Your task to perform on an android device: turn pop-ups on in chrome Image 0: 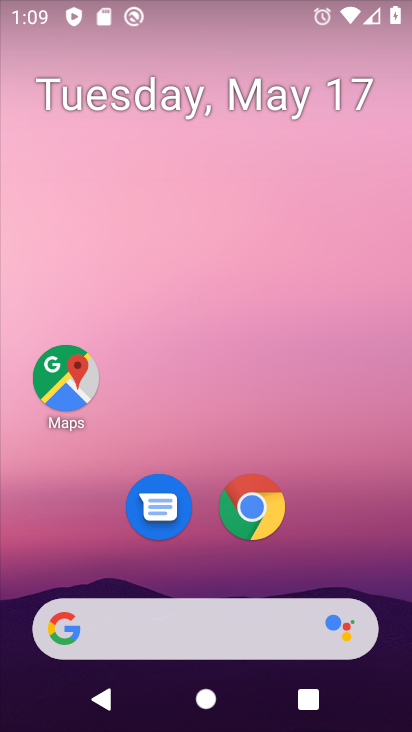
Step 0: click (227, 501)
Your task to perform on an android device: turn pop-ups on in chrome Image 1: 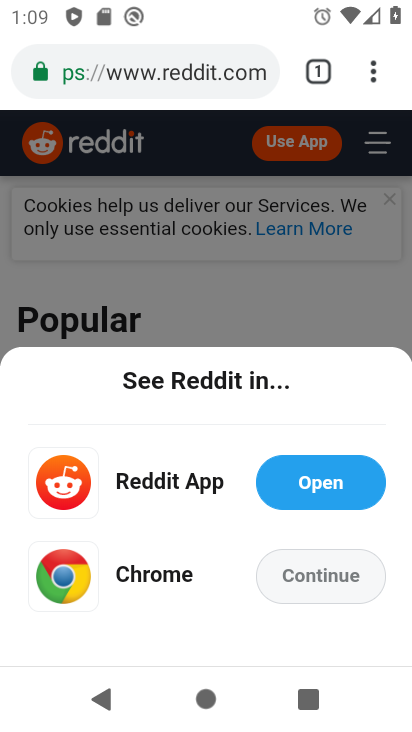
Step 1: click (354, 75)
Your task to perform on an android device: turn pop-ups on in chrome Image 2: 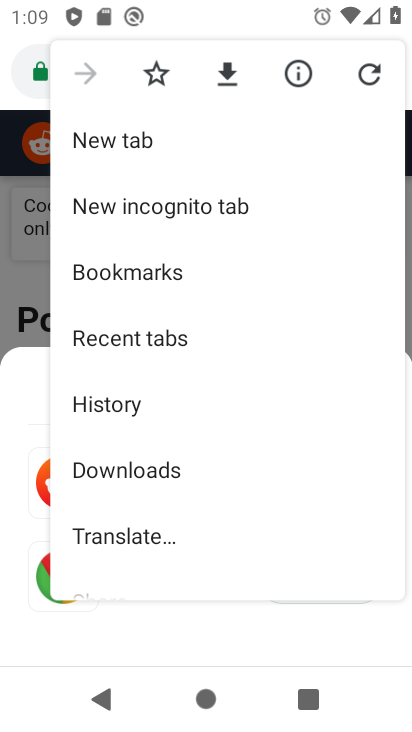
Step 2: drag from (211, 511) to (259, 252)
Your task to perform on an android device: turn pop-ups on in chrome Image 3: 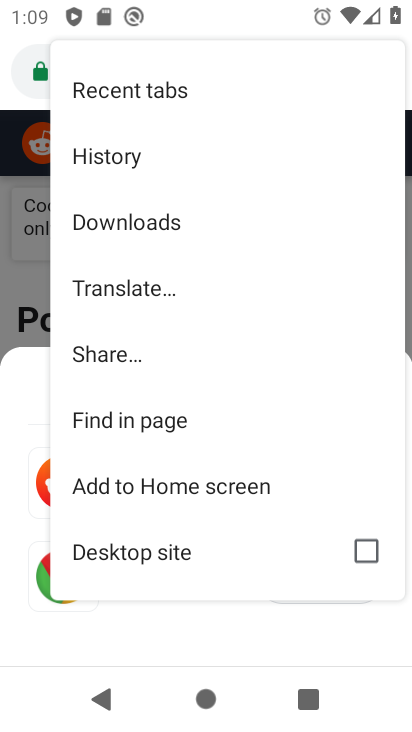
Step 3: drag from (179, 534) to (298, 183)
Your task to perform on an android device: turn pop-ups on in chrome Image 4: 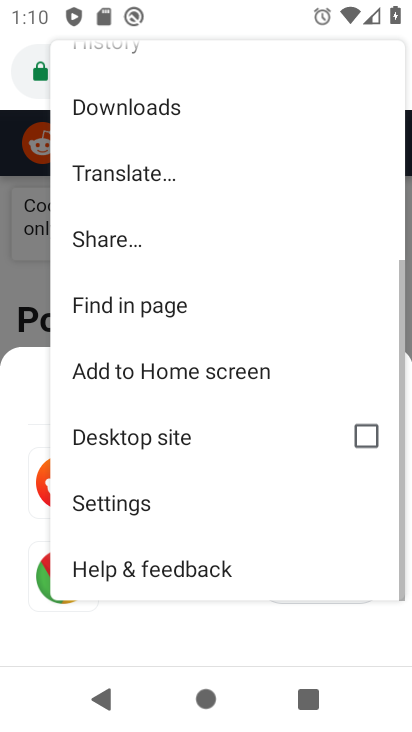
Step 4: click (123, 495)
Your task to perform on an android device: turn pop-ups on in chrome Image 5: 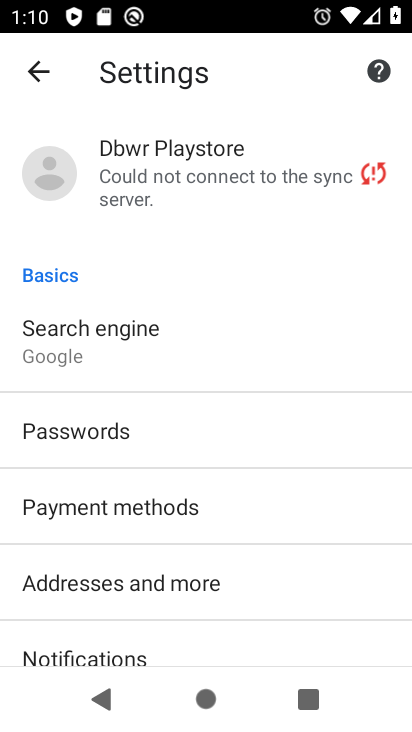
Step 5: drag from (145, 554) to (252, 168)
Your task to perform on an android device: turn pop-ups on in chrome Image 6: 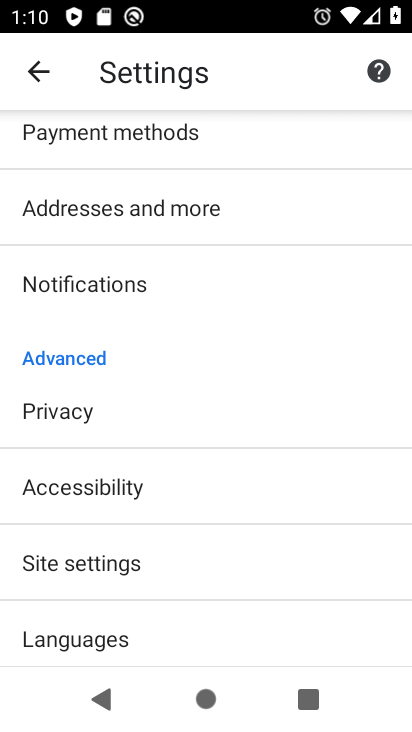
Step 6: drag from (160, 579) to (223, 364)
Your task to perform on an android device: turn pop-ups on in chrome Image 7: 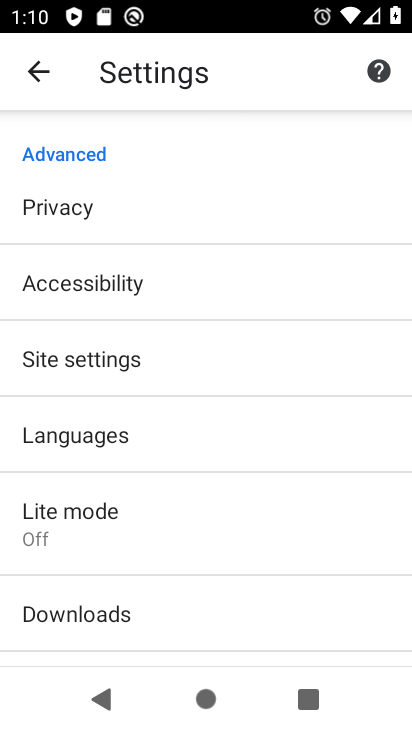
Step 7: click (172, 362)
Your task to perform on an android device: turn pop-ups on in chrome Image 8: 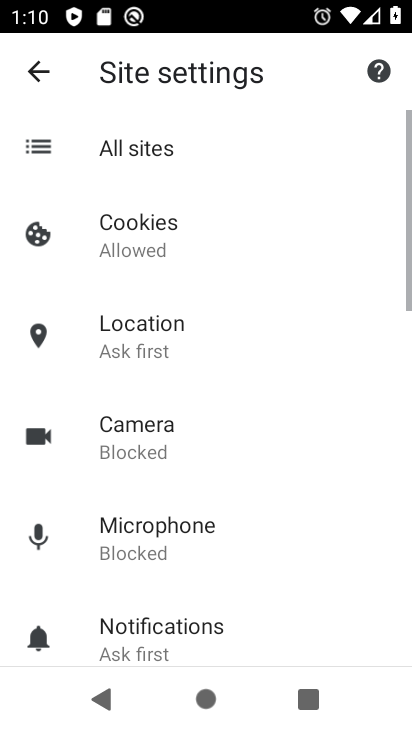
Step 8: drag from (195, 611) to (300, 253)
Your task to perform on an android device: turn pop-ups on in chrome Image 9: 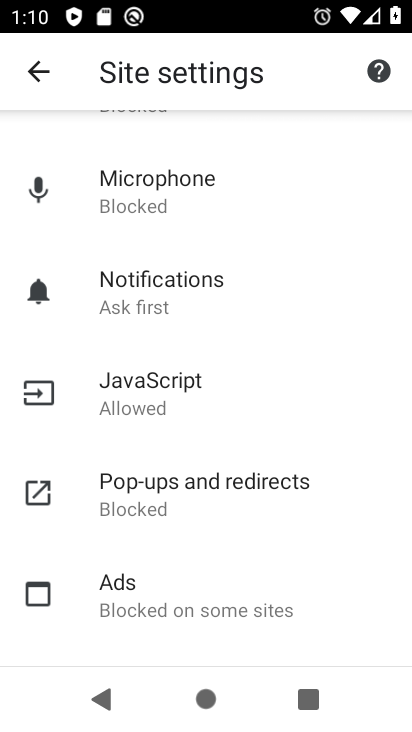
Step 9: click (124, 500)
Your task to perform on an android device: turn pop-ups on in chrome Image 10: 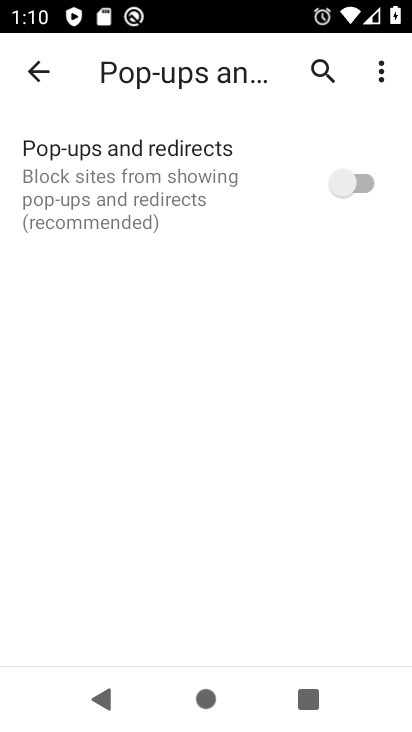
Step 10: click (334, 186)
Your task to perform on an android device: turn pop-ups on in chrome Image 11: 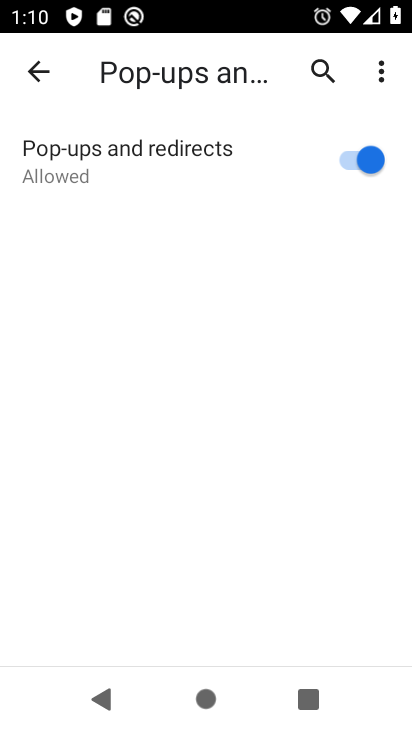
Step 11: task complete